Your task to perform on an android device: remove spam from my inbox in the gmail app Image 0: 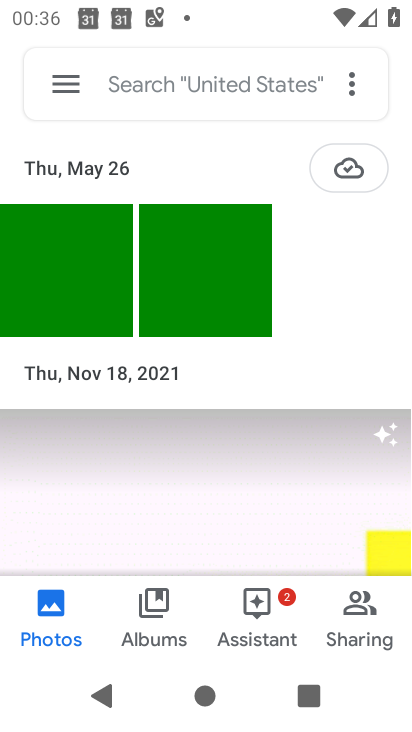
Step 0: press home button
Your task to perform on an android device: remove spam from my inbox in the gmail app Image 1: 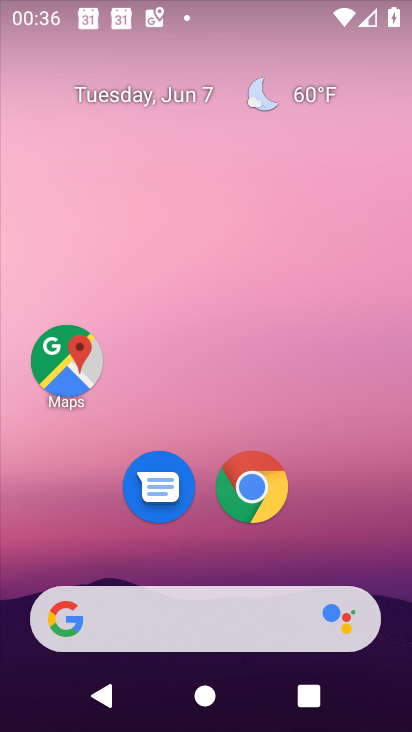
Step 1: drag from (396, 545) to (249, 147)
Your task to perform on an android device: remove spam from my inbox in the gmail app Image 2: 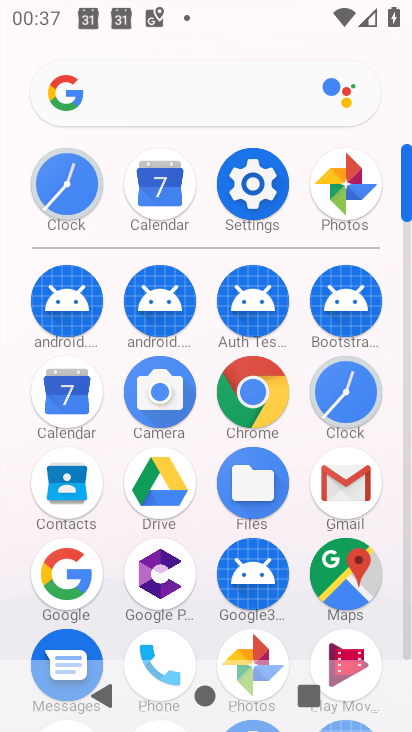
Step 2: click (362, 488)
Your task to perform on an android device: remove spam from my inbox in the gmail app Image 3: 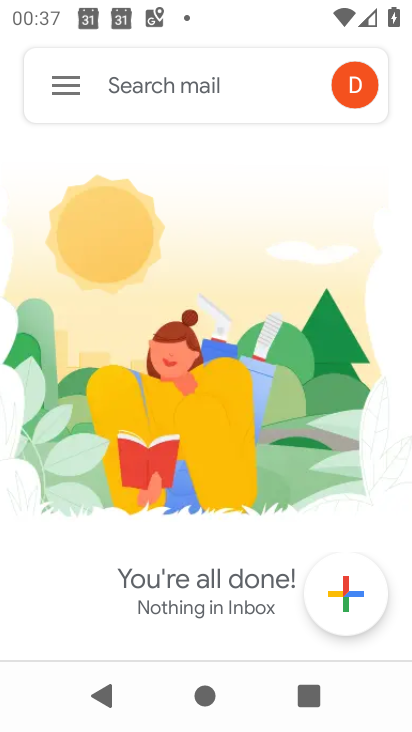
Step 3: click (62, 97)
Your task to perform on an android device: remove spam from my inbox in the gmail app Image 4: 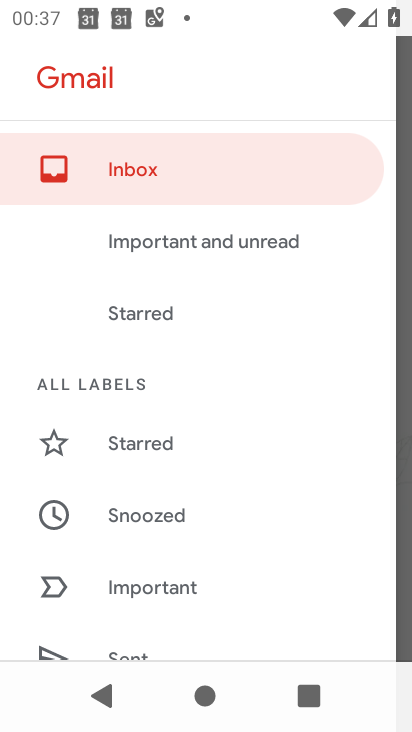
Step 4: drag from (229, 594) to (216, 137)
Your task to perform on an android device: remove spam from my inbox in the gmail app Image 5: 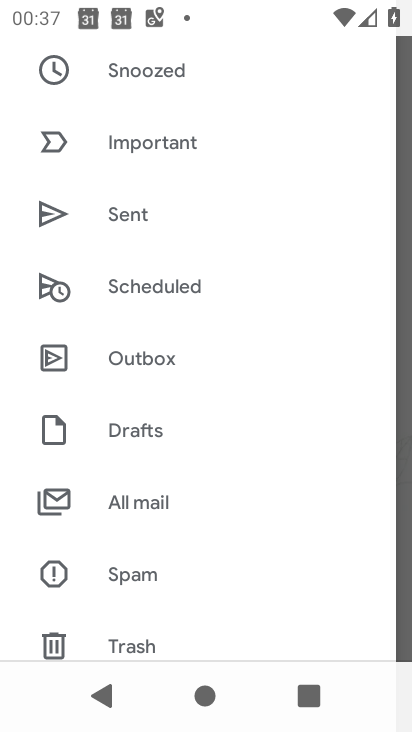
Step 5: click (165, 570)
Your task to perform on an android device: remove spam from my inbox in the gmail app Image 6: 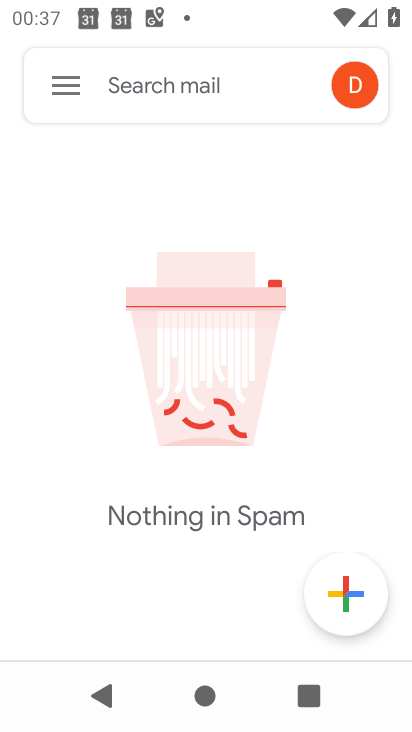
Step 6: task complete